Your task to perform on an android device: Open internet settings Image 0: 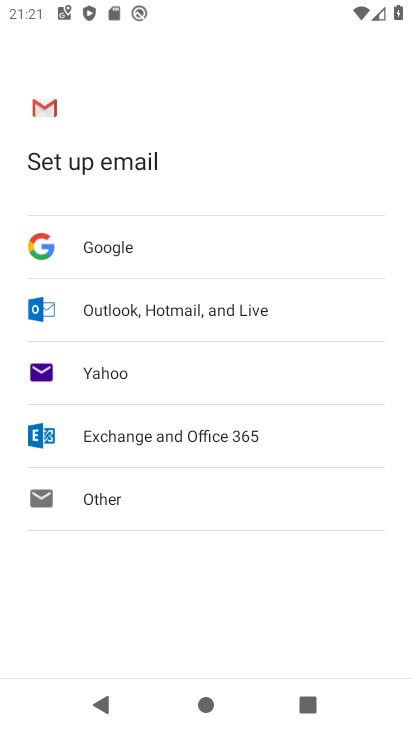
Step 0: press home button
Your task to perform on an android device: Open internet settings Image 1: 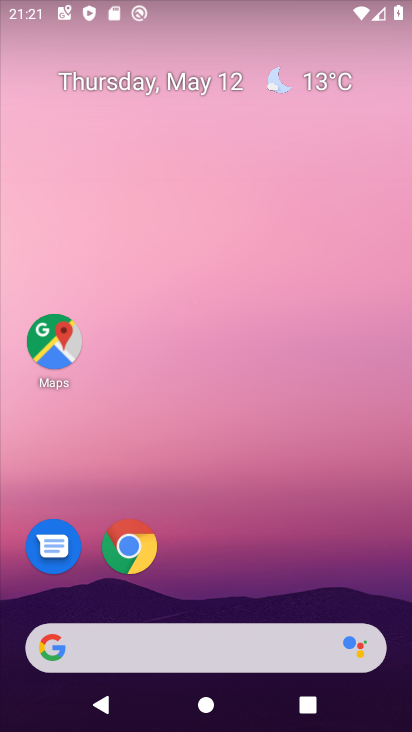
Step 1: drag from (326, 588) to (320, 92)
Your task to perform on an android device: Open internet settings Image 2: 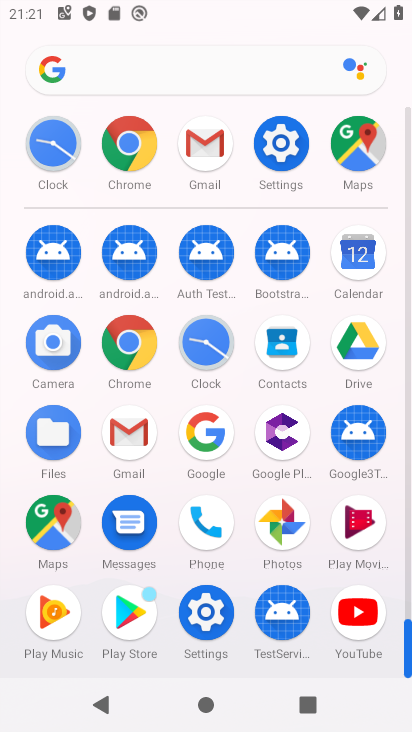
Step 2: click (284, 145)
Your task to perform on an android device: Open internet settings Image 3: 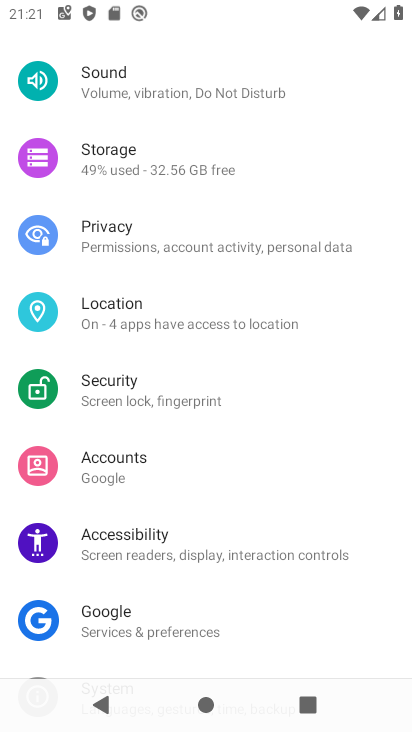
Step 3: drag from (325, 97) to (283, 607)
Your task to perform on an android device: Open internet settings Image 4: 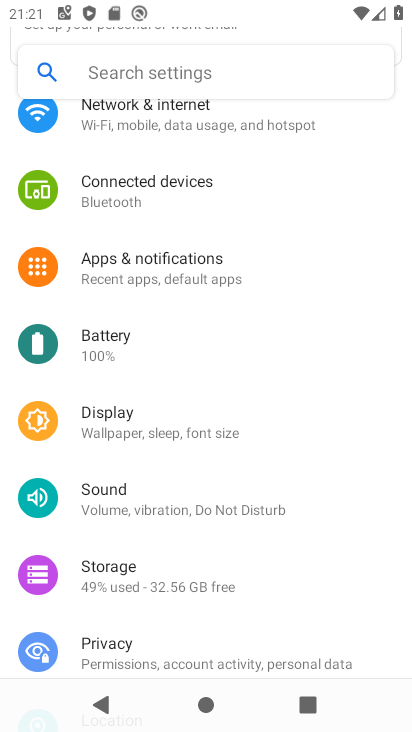
Step 4: click (173, 112)
Your task to perform on an android device: Open internet settings Image 5: 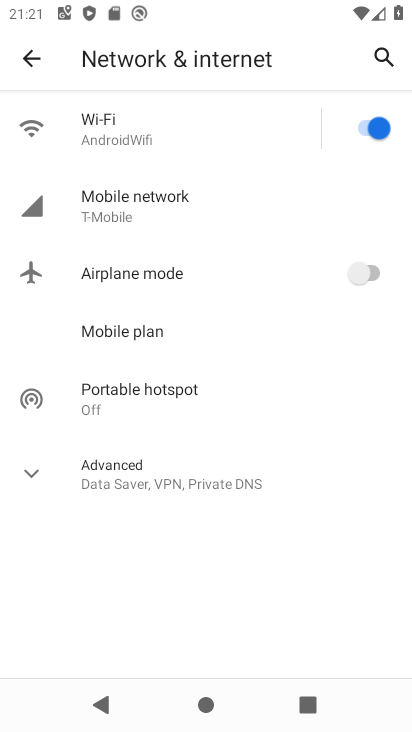
Step 5: task complete